Your task to perform on an android device: Go to battery settings Image 0: 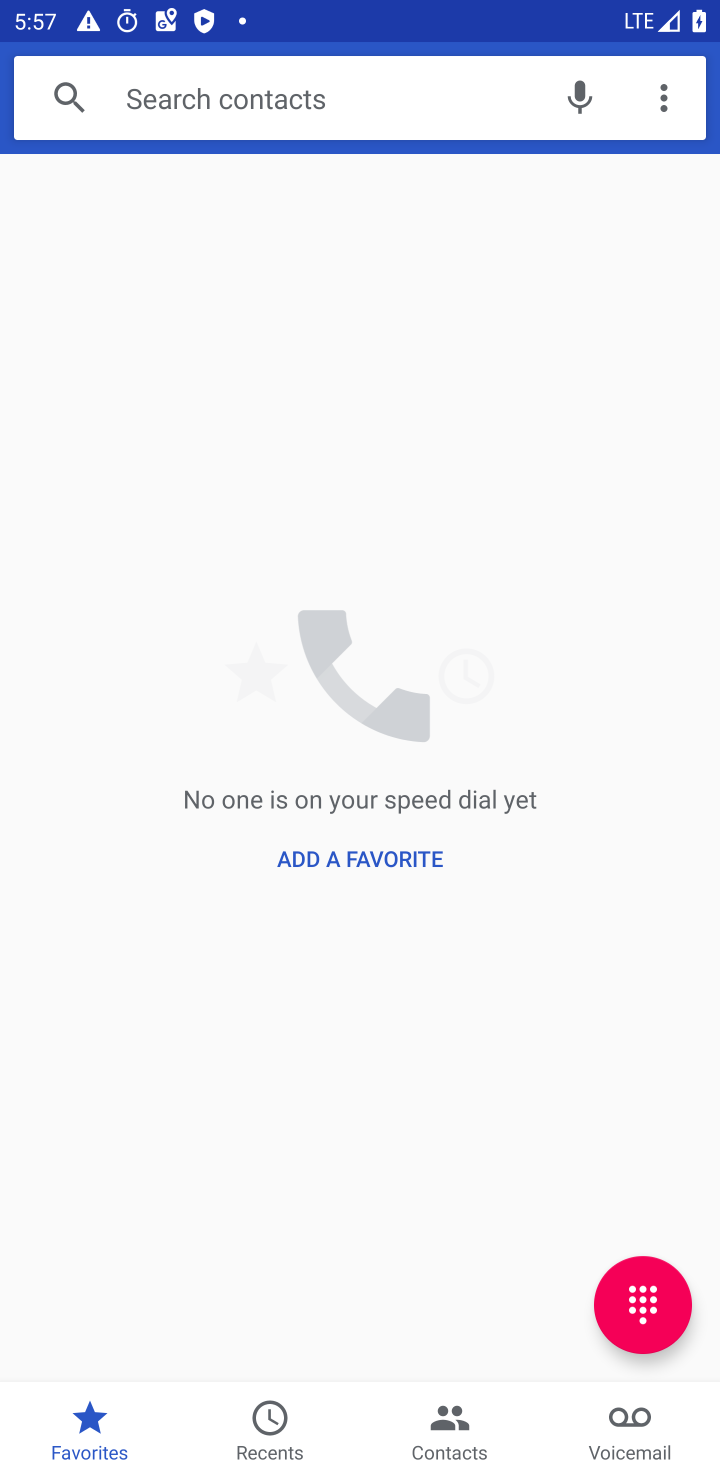
Step 0: press home button
Your task to perform on an android device: Go to battery settings Image 1: 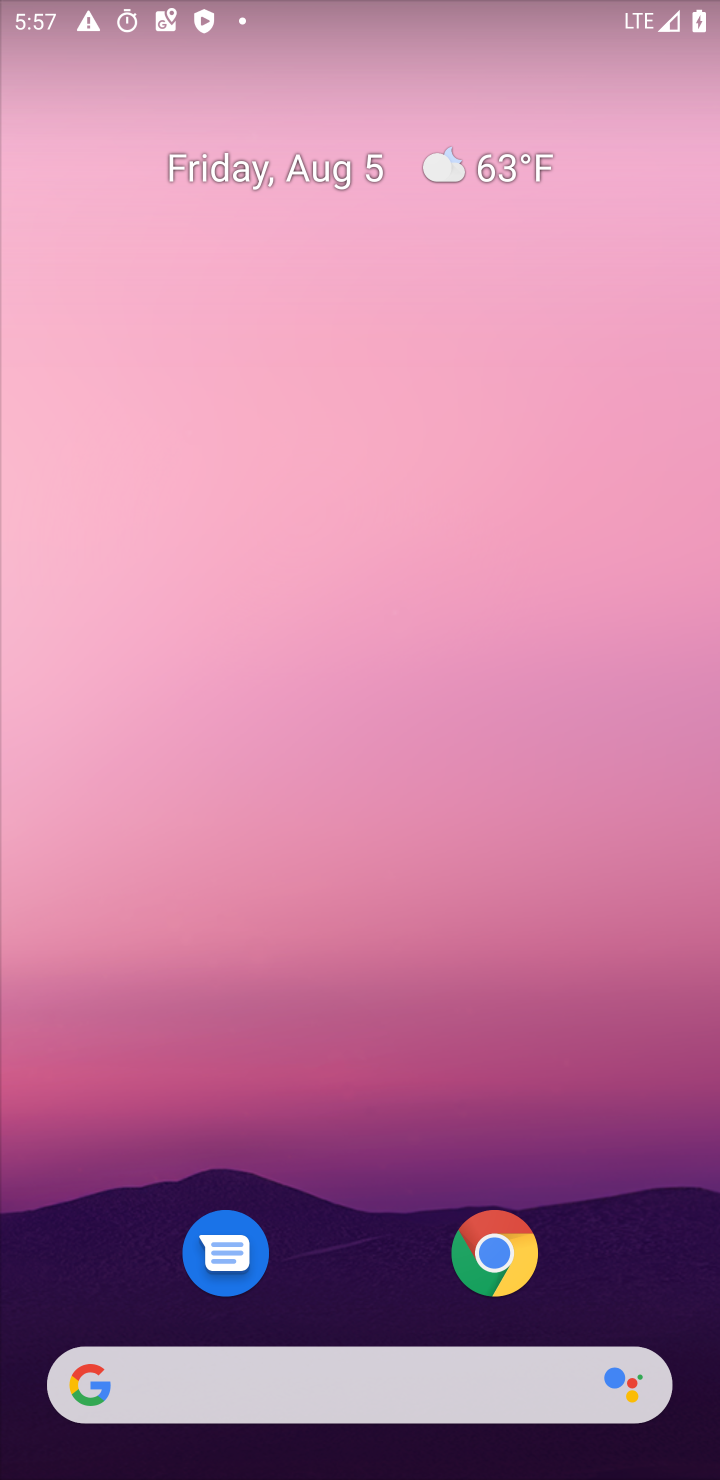
Step 1: drag from (160, 149) to (218, 47)
Your task to perform on an android device: Go to battery settings Image 2: 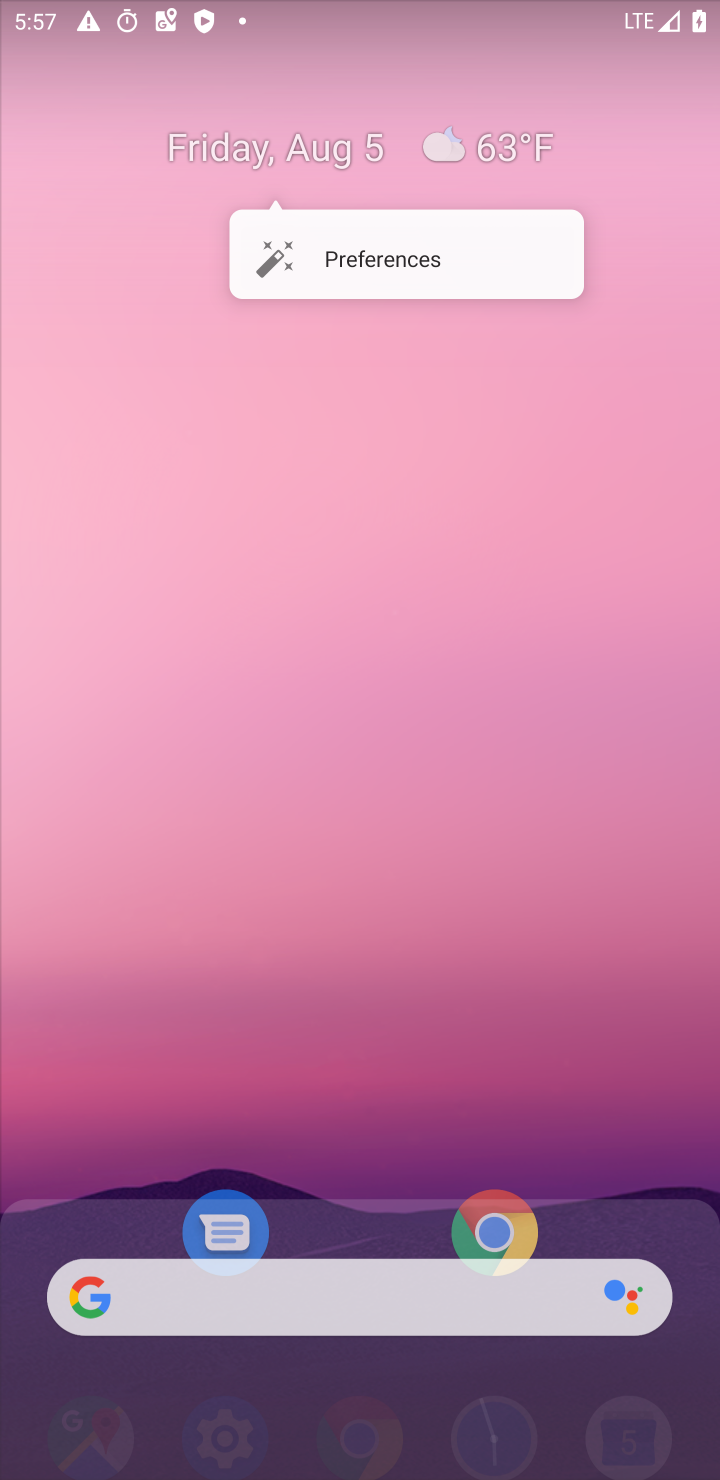
Step 2: click (405, 673)
Your task to perform on an android device: Go to battery settings Image 3: 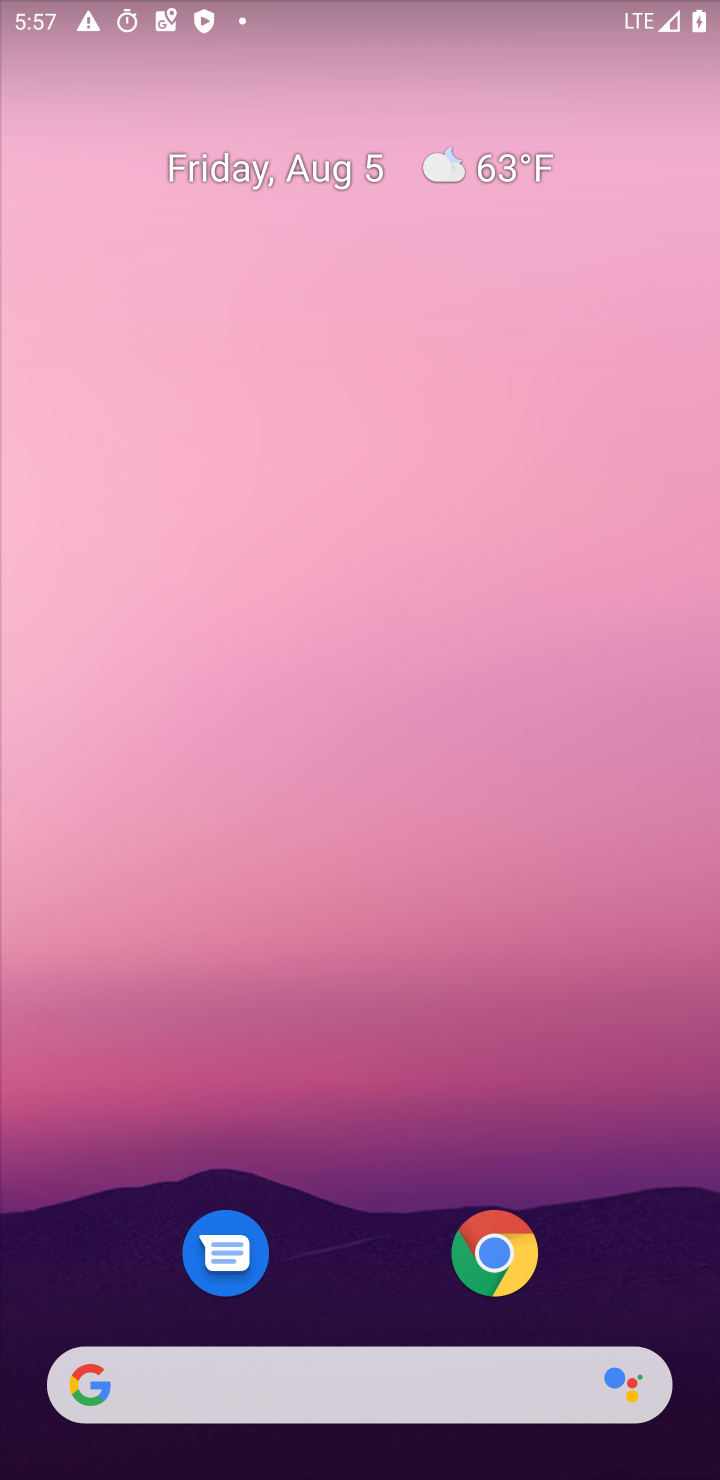
Step 3: drag from (359, 1211) to (612, 36)
Your task to perform on an android device: Go to battery settings Image 4: 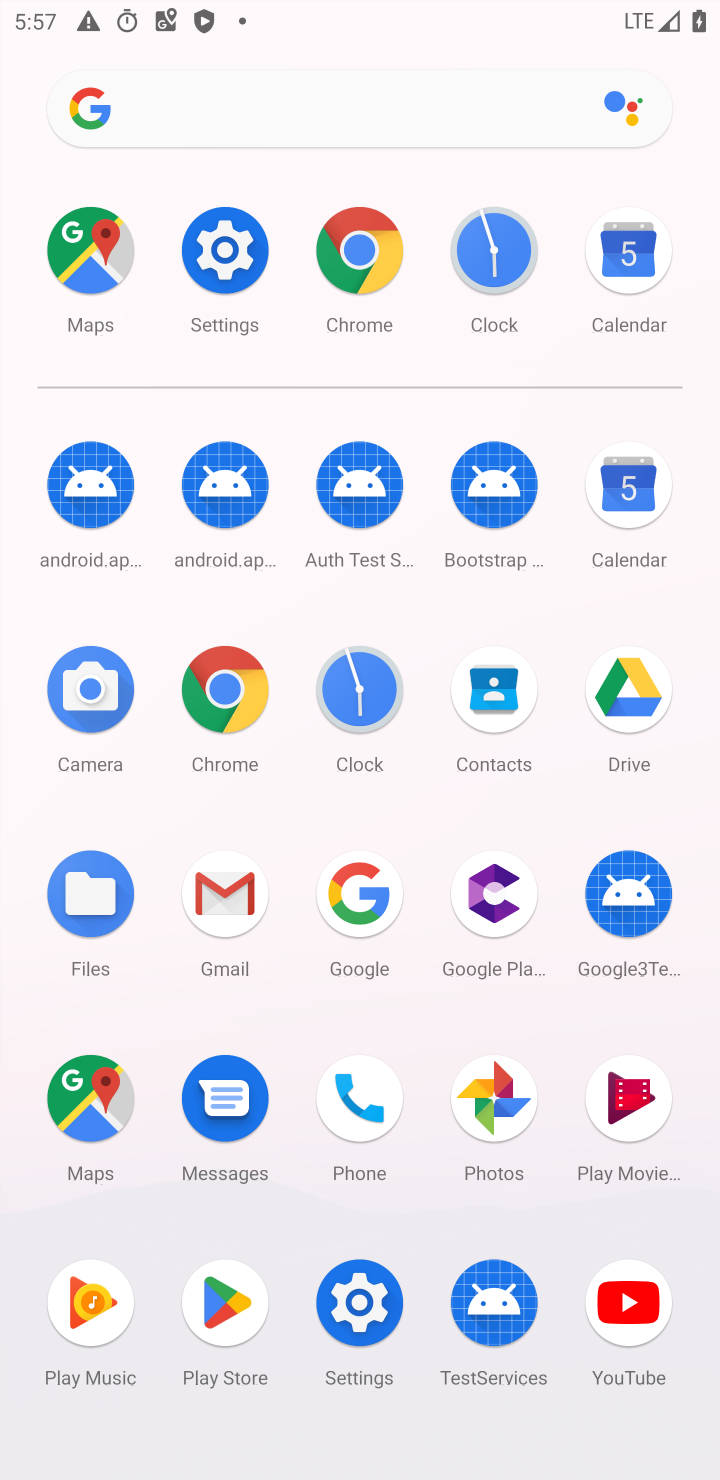
Step 4: click (359, 1330)
Your task to perform on an android device: Go to battery settings Image 5: 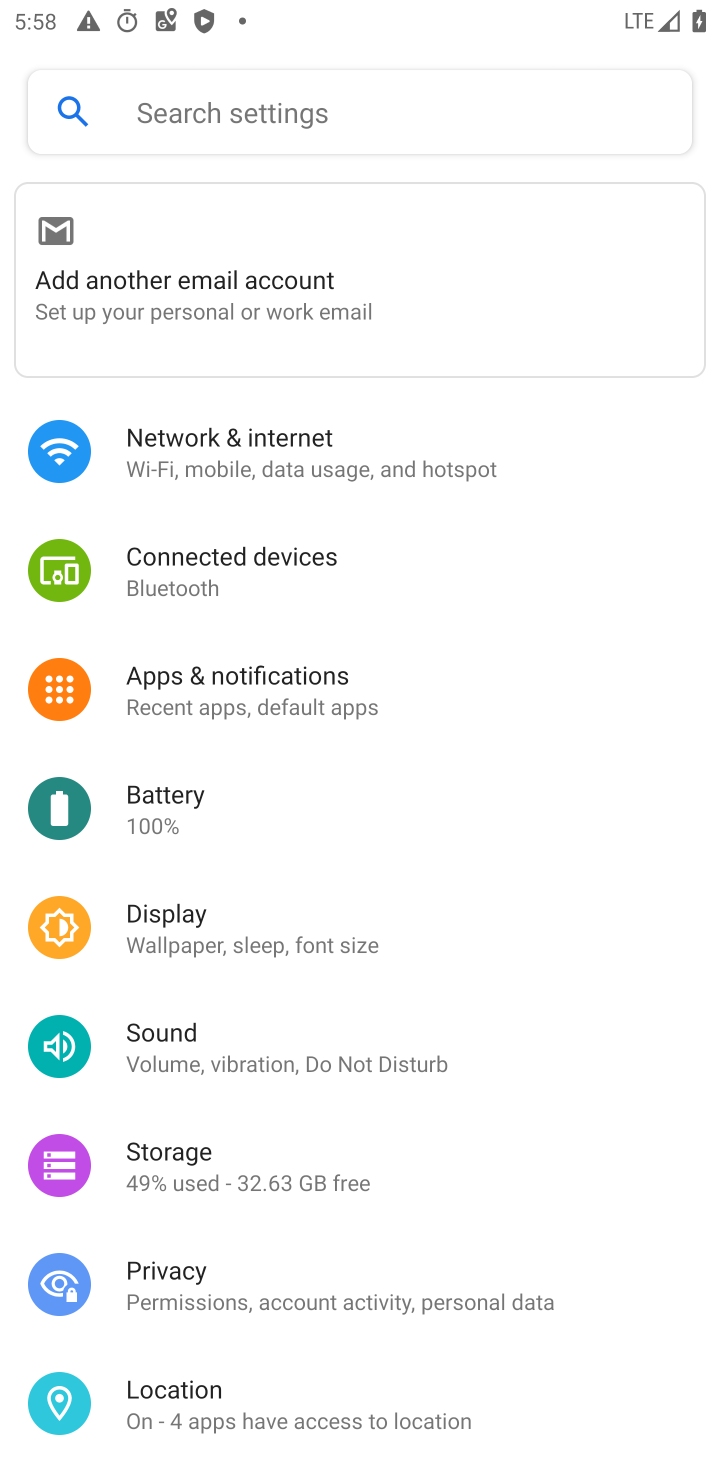
Step 5: click (189, 791)
Your task to perform on an android device: Go to battery settings Image 6: 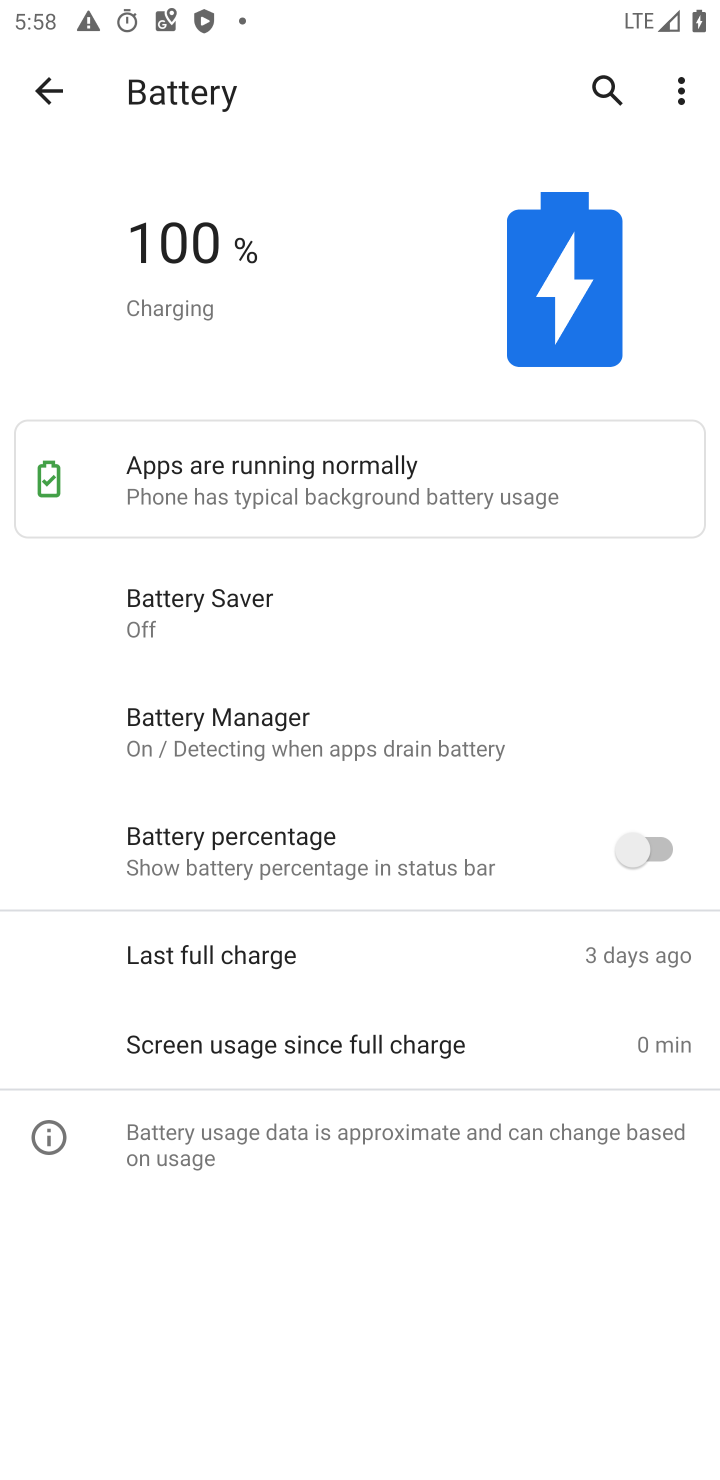
Step 6: task complete